Your task to perform on an android device: Go to calendar. Show me events next week Image 0: 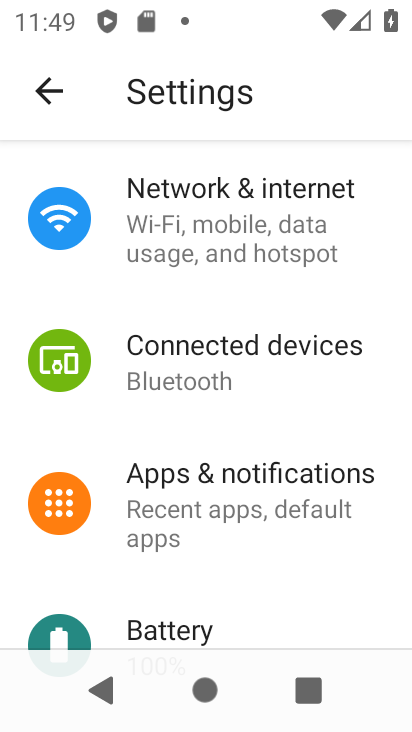
Step 0: drag from (235, 574) to (274, 266)
Your task to perform on an android device: Go to calendar. Show me events next week Image 1: 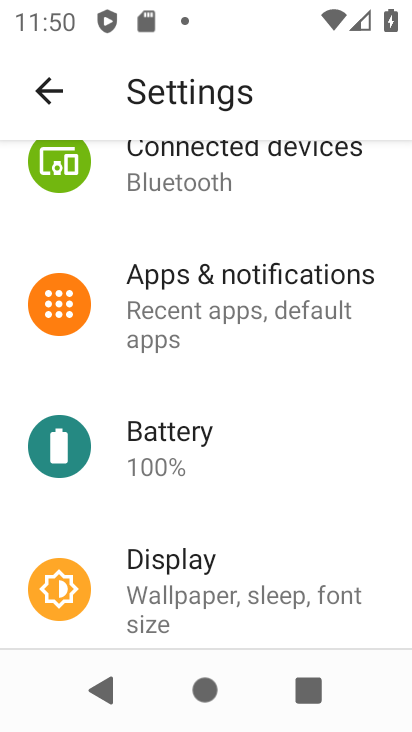
Step 1: press home button
Your task to perform on an android device: Go to calendar. Show me events next week Image 2: 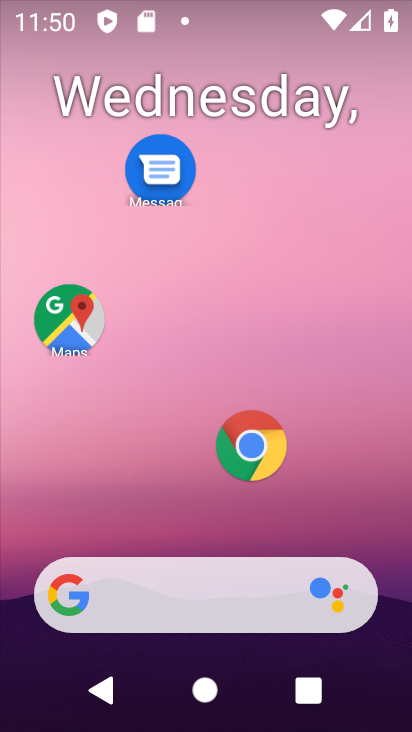
Step 2: drag from (180, 524) to (262, 270)
Your task to perform on an android device: Go to calendar. Show me events next week Image 3: 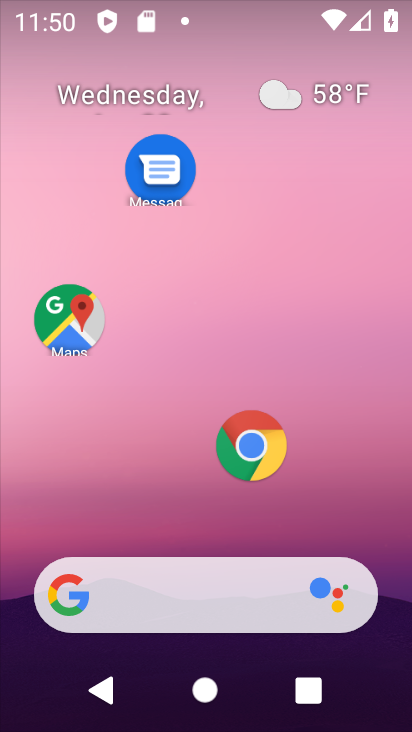
Step 3: drag from (210, 432) to (290, 139)
Your task to perform on an android device: Go to calendar. Show me events next week Image 4: 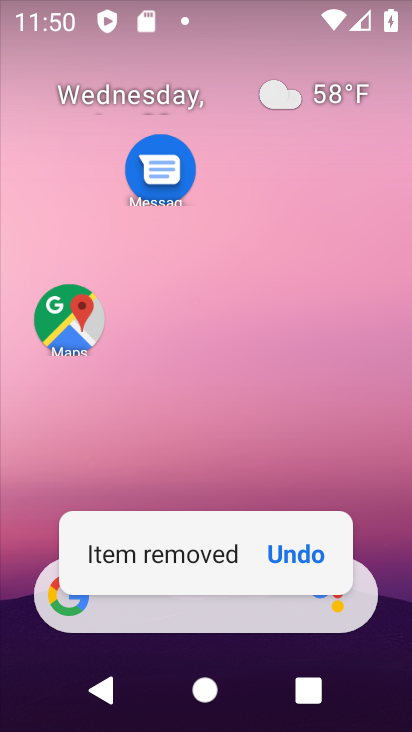
Step 4: drag from (221, 467) to (291, 4)
Your task to perform on an android device: Go to calendar. Show me events next week Image 5: 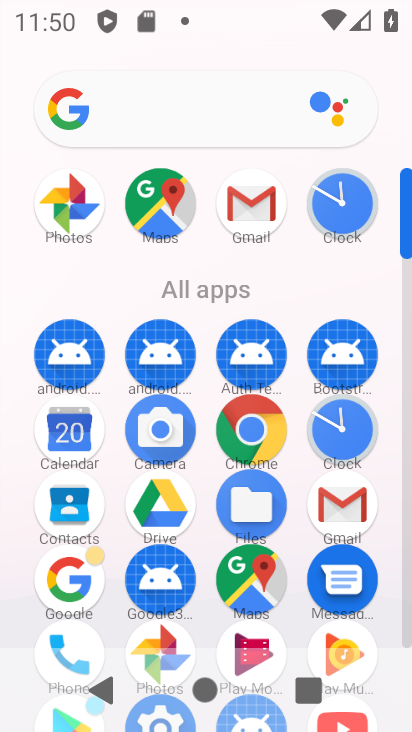
Step 5: click (70, 420)
Your task to perform on an android device: Go to calendar. Show me events next week Image 6: 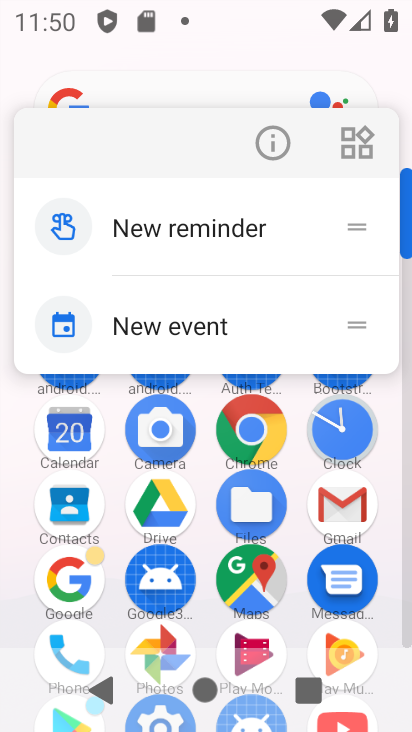
Step 6: click (277, 139)
Your task to perform on an android device: Go to calendar. Show me events next week Image 7: 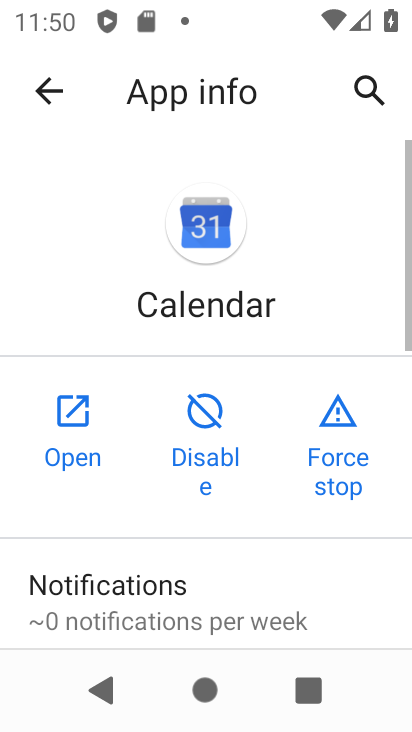
Step 7: click (86, 429)
Your task to perform on an android device: Go to calendar. Show me events next week Image 8: 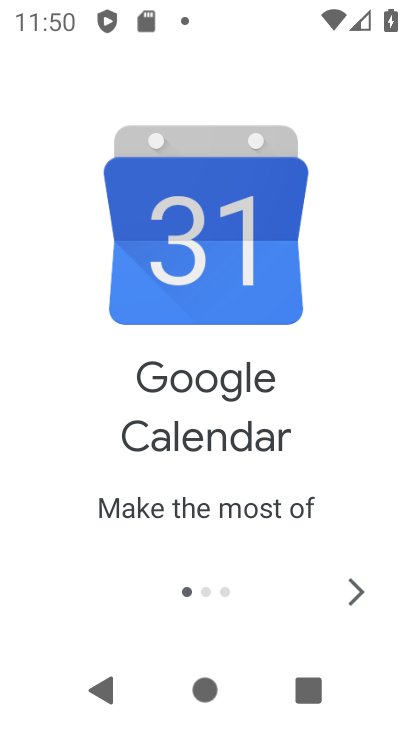
Step 8: click (357, 577)
Your task to perform on an android device: Go to calendar. Show me events next week Image 9: 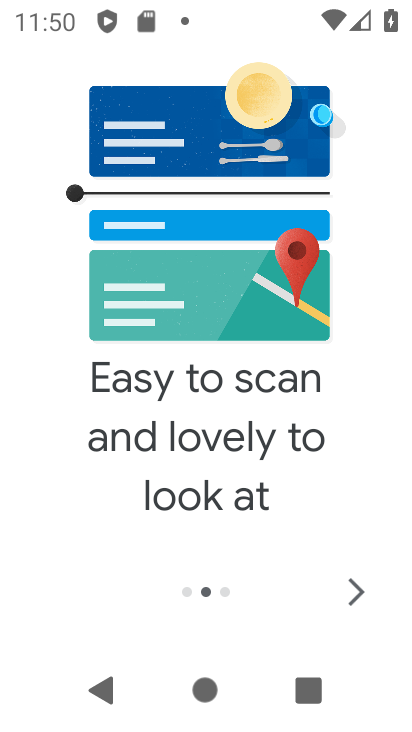
Step 9: click (355, 594)
Your task to perform on an android device: Go to calendar. Show me events next week Image 10: 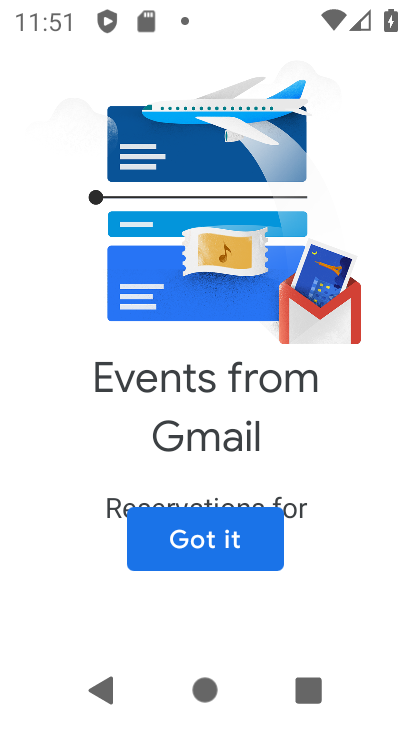
Step 10: click (206, 527)
Your task to perform on an android device: Go to calendar. Show me events next week Image 11: 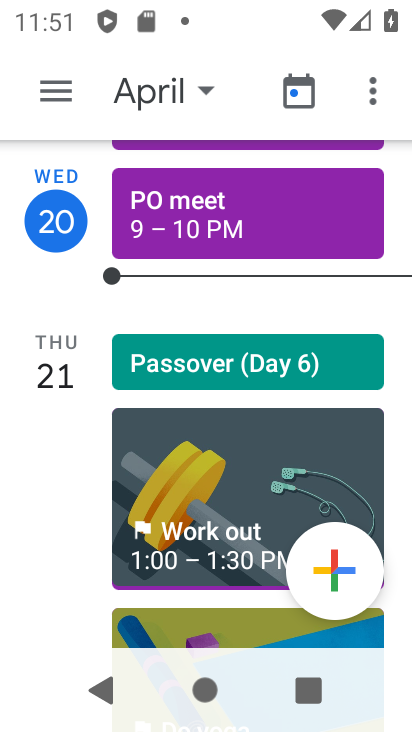
Step 11: click (153, 100)
Your task to perform on an android device: Go to calendar. Show me events next week Image 12: 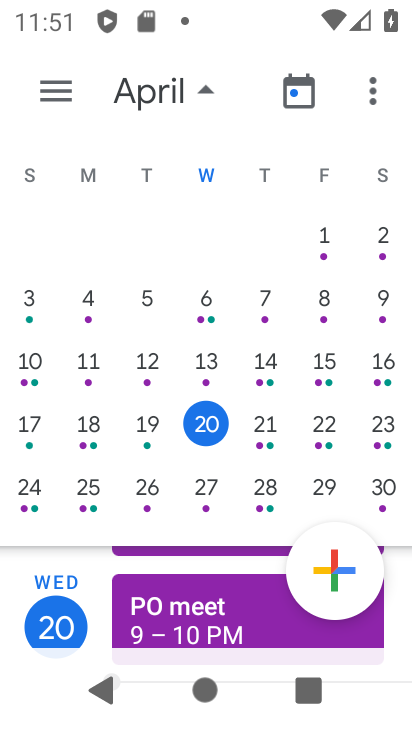
Step 12: click (203, 494)
Your task to perform on an android device: Go to calendar. Show me events next week Image 13: 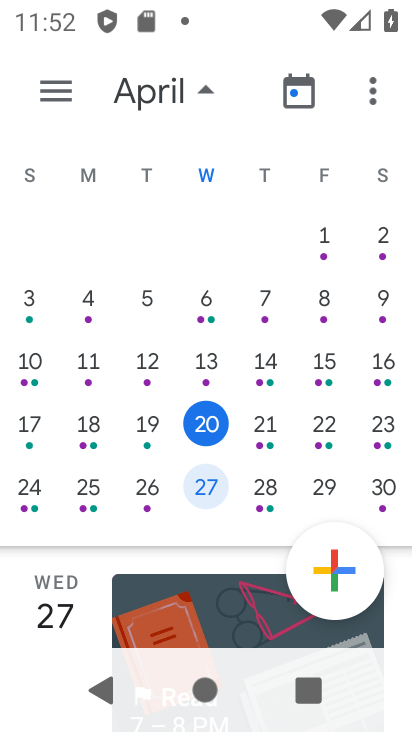
Step 13: task complete